Your task to perform on an android device: Show me popular videos on Youtube Image 0: 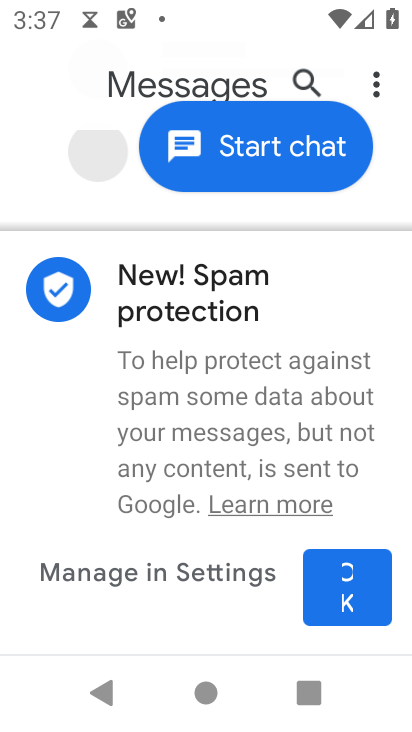
Step 0: press home button
Your task to perform on an android device: Show me popular videos on Youtube Image 1: 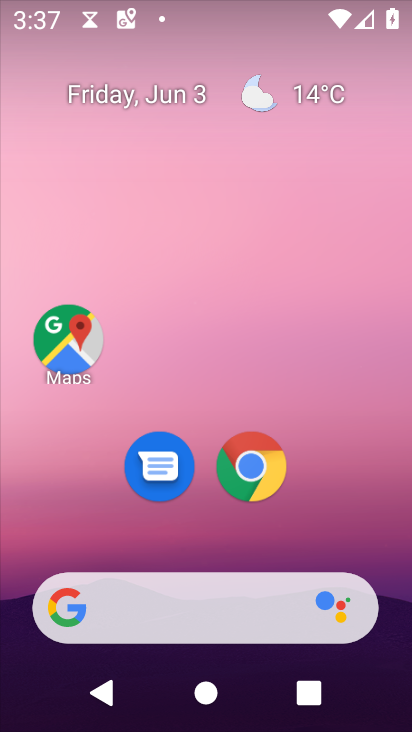
Step 1: drag from (343, 529) to (302, 157)
Your task to perform on an android device: Show me popular videos on Youtube Image 2: 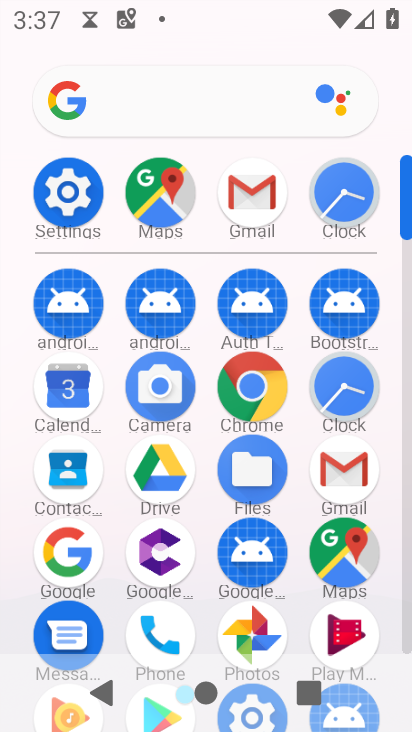
Step 2: click (401, 604)
Your task to perform on an android device: Show me popular videos on Youtube Image 3: 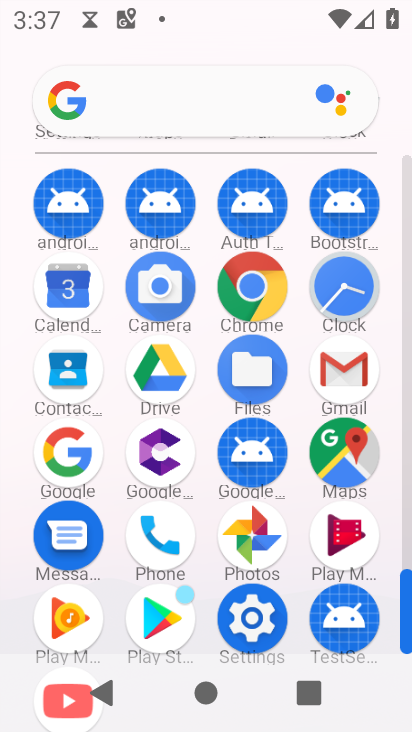
Step 3: click (408, 675)
Your task to perform on an android device: Show me popular videos on Youtube Image 4: 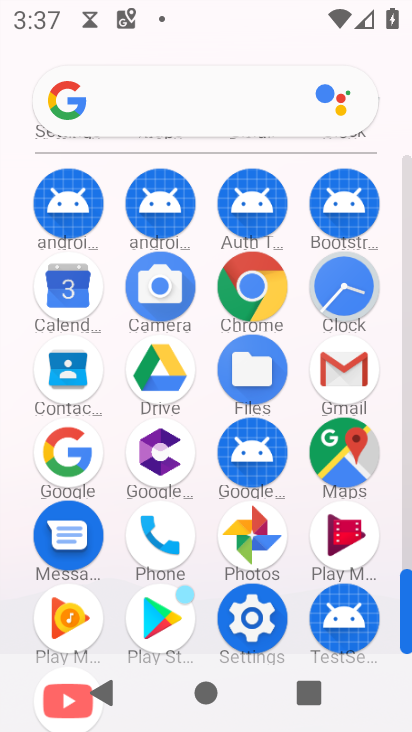
Step 4: click (408, 675)
Your task to perform on an android device: Show me popular videos on Youtube Image 5: 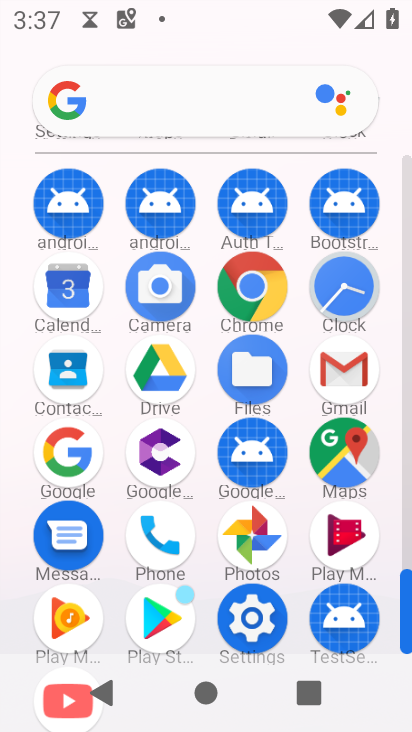
Step 5: click (408, 675)
Your task to perform on an android device: Show me popular videos on Youtube Image 6: 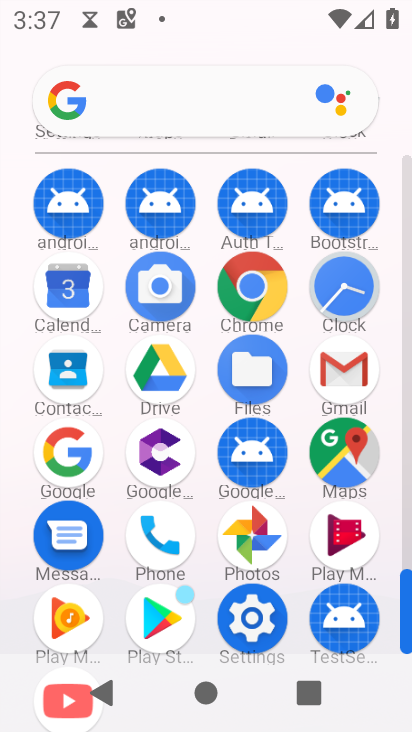
Step 6: drag from (388, 515) to (391, 292)
Your task to perform on an android device: Show me popular videos on Youtube Image 7: 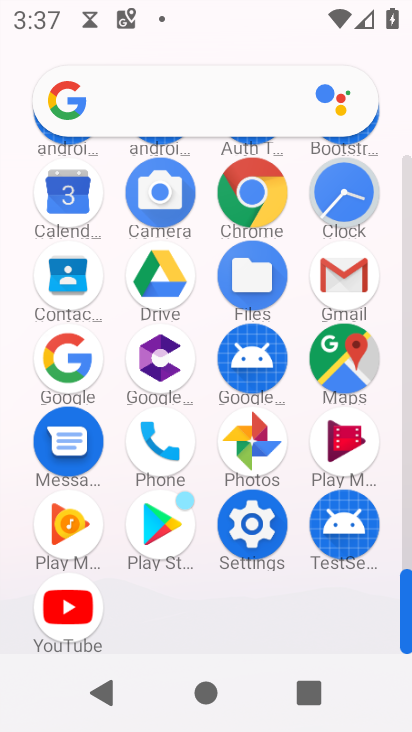
Step 7: click (61, 614)
Your task to perform on an android device: Show me popular videos on Youtube Image 8: 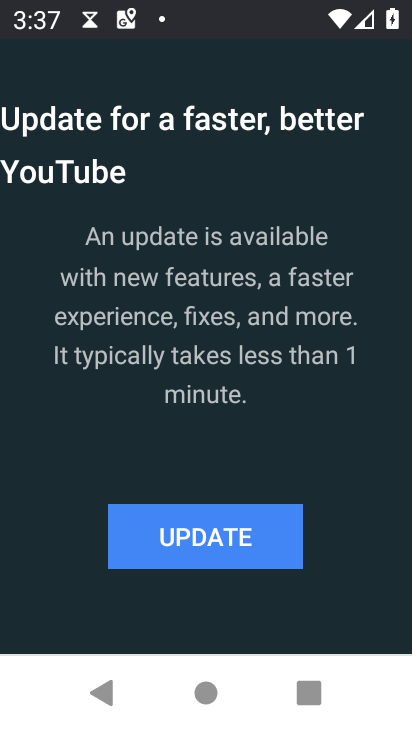
Step 8: click (220, 541)
Your task to perform on an android device: Show me popular videos on Youtube Image 9: 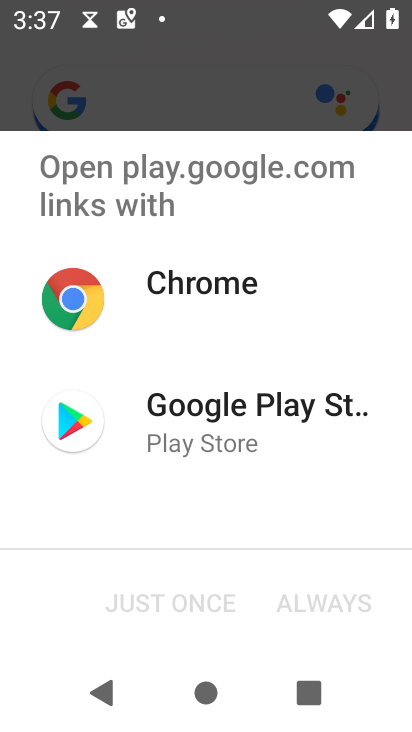
Step 9: click (281, 308)
Your task to perform on an android device: Show me popular videos on Youtube Image 10: 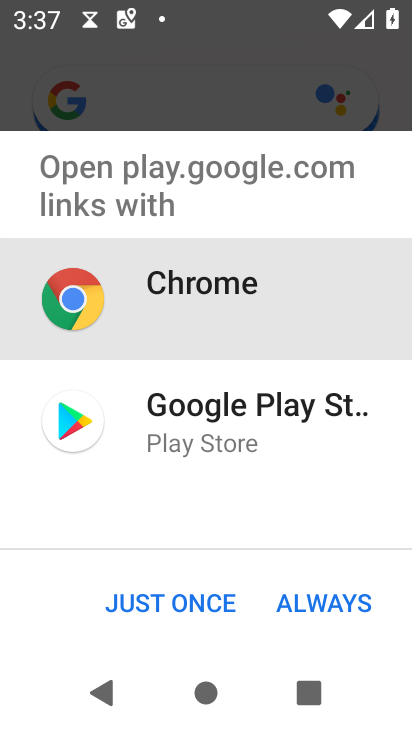
Step 10: click (359, 624)
Your task to perform on an android device: Show me popular videos on Youtube Image 11: 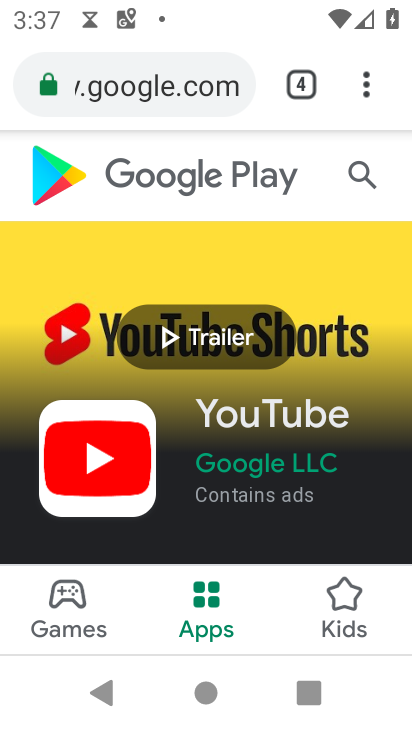
Step 11: drag from (311, 528) to (315, 247)
Your task to perform on an android device: Show me popular videos on Youtube Image 12: 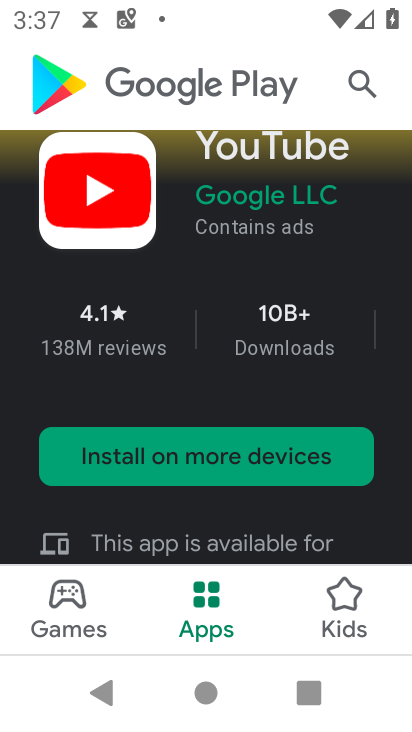
Step 12: click (228, 457)
Your task to perform on an android device: Show me popular videos on Youtube Image 13: 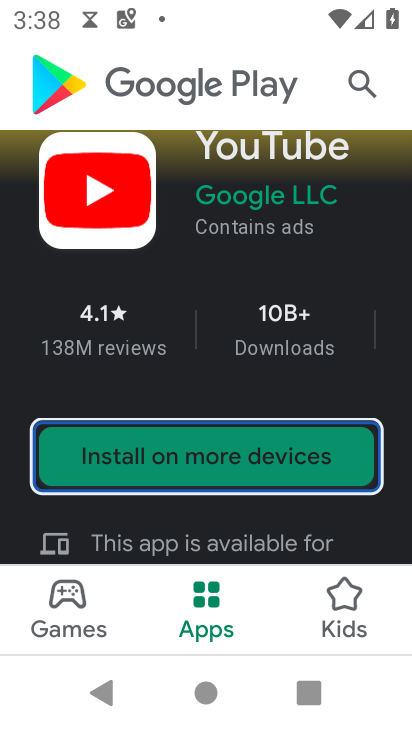
Step 13: click (227, 457)
Your task to perform on an android device: Show me popular videos on Youtube Image 14: 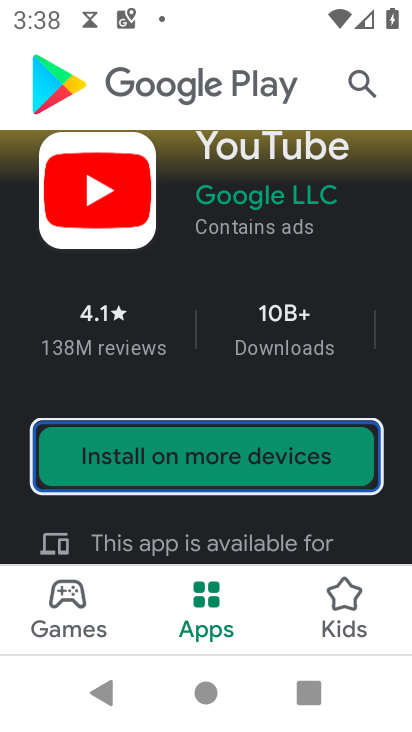
Step 14: task complete